Your task to perform on an android device: Is it going to rain today? Image 0: 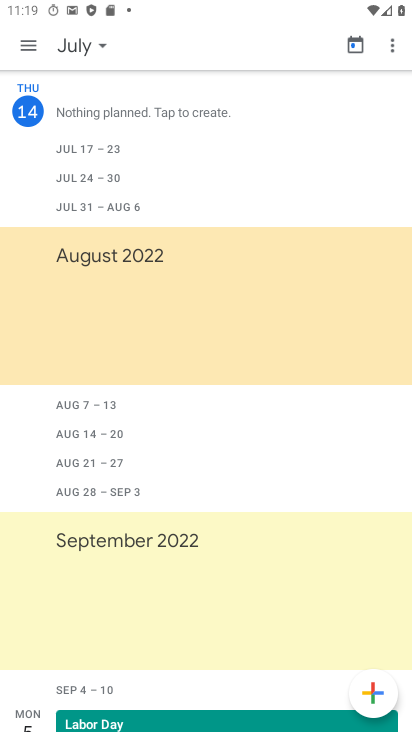
Step 0: press home button
Your task to perform on an android device: Is it going to rain today? Image 1: 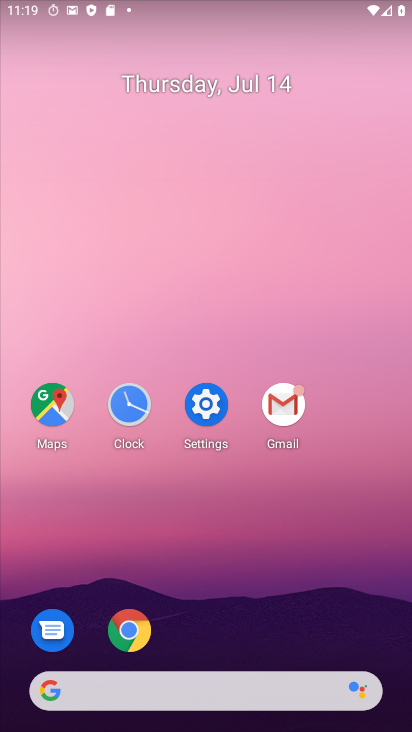
Step 1: drag from (24, 223) to (407, 203)
Your task to perform on an android device: Is it going to rain today? Image 2: 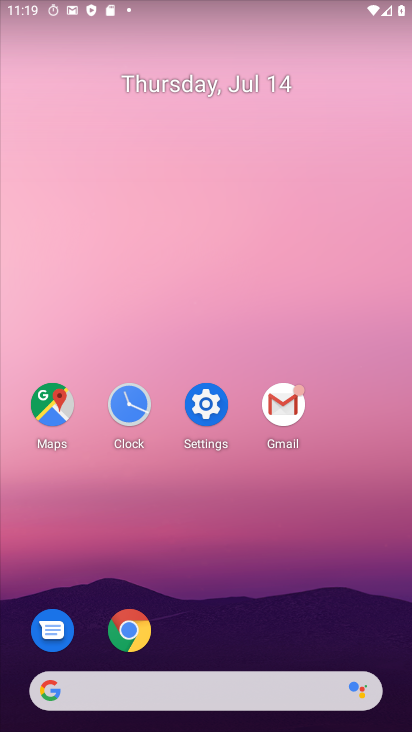
Step 2: drag from (1, 231) to (408, 242)
Your task to perform on an android device: Is it going to rain today? Image 3: 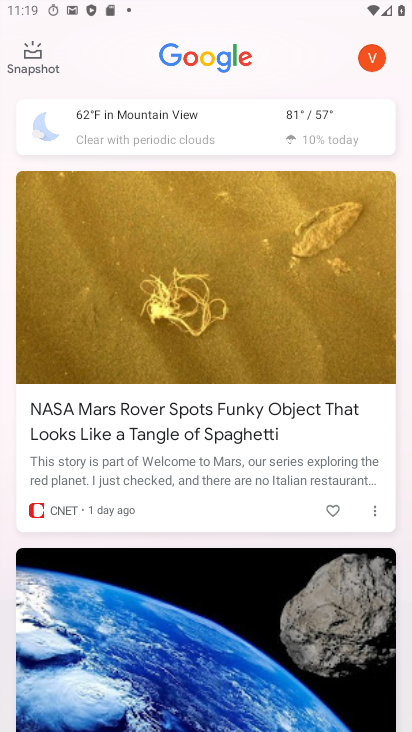
Step 3: drag from (259, 244) to (286, 570)
Your task to perform on an android device: Is it going to rain today? Image 4: 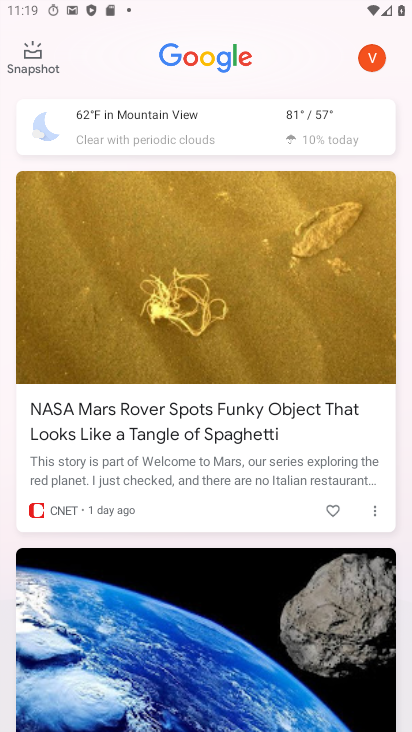
Step 4: click (332, 124)
Your task to perform on an android device: Is it going to rain today? Image 5: 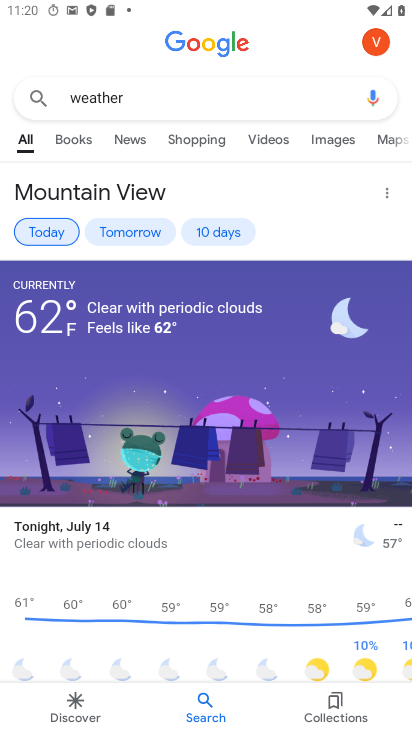
Step 5: task complete